Your task to perform on an android device: delete browsing data in the chrome app Image 0: 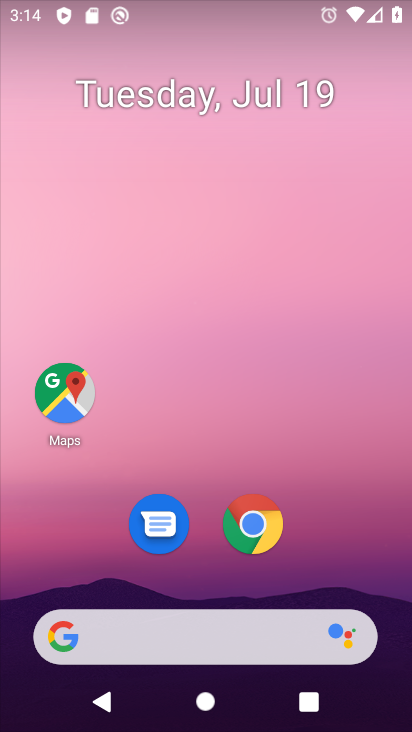
Step 0: click (324, 282)
Your task to perform on an android device: delete browsing data in the chrome app Image 1: 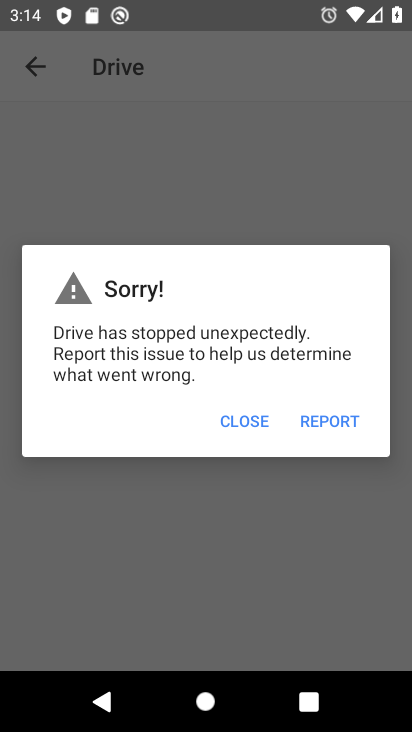
Step 1: press home button
Your task to perform on an android device: delete browsing data in the chrome app Image 2: 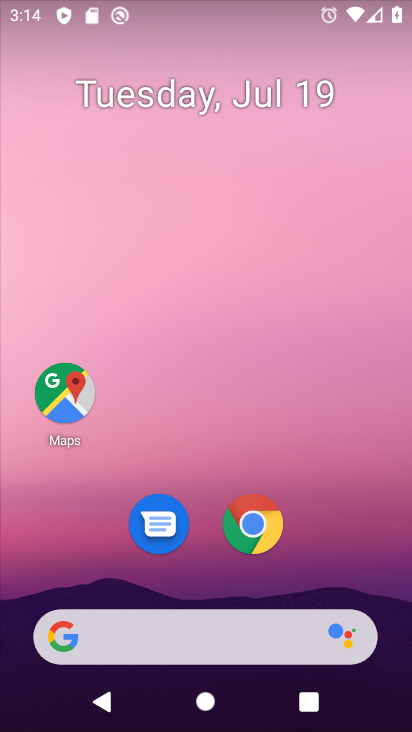
Step 2: click (254, 527)
Your task to perform on an android device: delete browsing data in the chrome app Image 3: 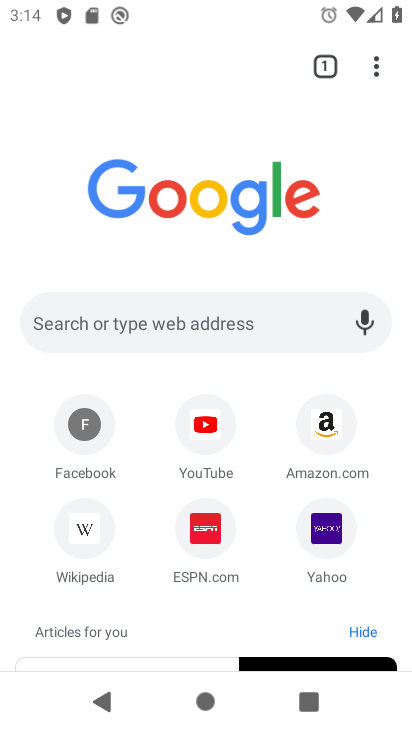
Step 3: click (373, 72)
Your task to perform on an android device: delete browsing data in the chrome app Image 4: 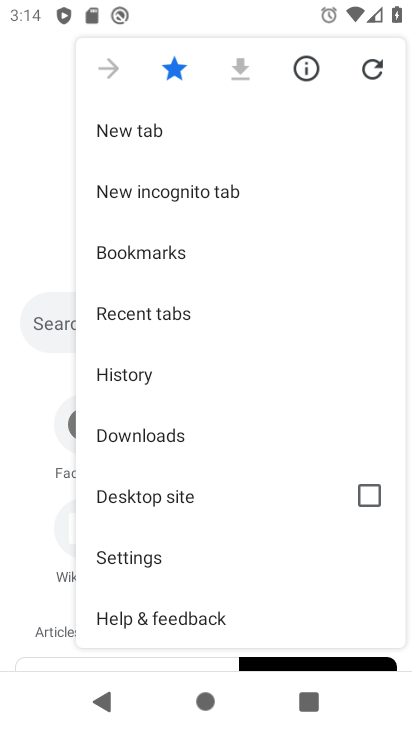
Step 4: click (150, 373)
Your task to perform on an android device: delete browsing data in the chrome app Image 5: 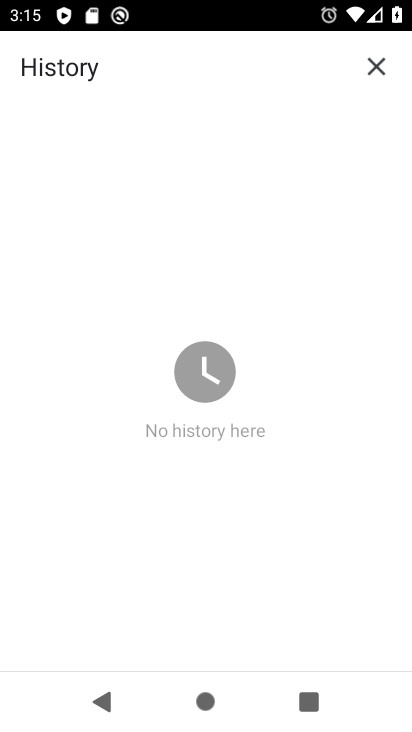
Step 5: task complete